Your task to perform on an android device: see sites visited before in the chrome app Image 0: 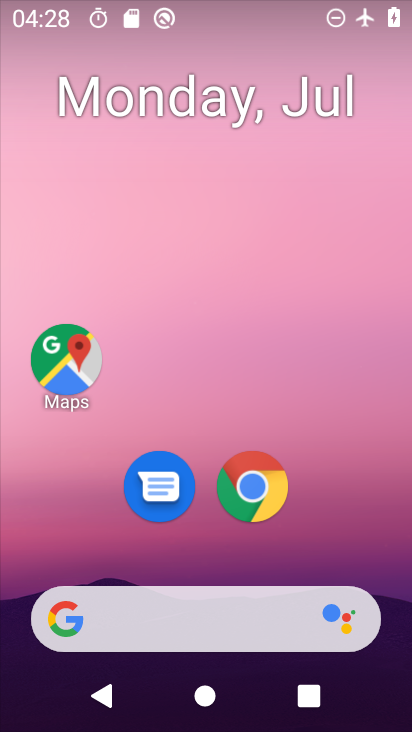
Step 0: click (277, 495)
Your task to perform on an android device: see sites visited before in the chrome app Image 1: 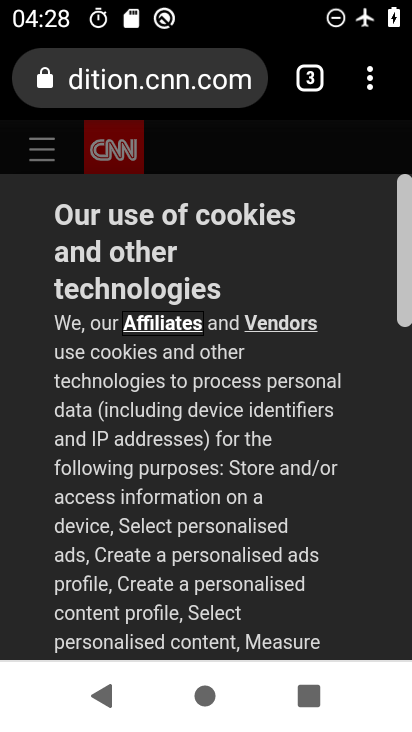
Step 1: task complete